Your task to perform on an android device: toggle improve location accuracy Image 0: 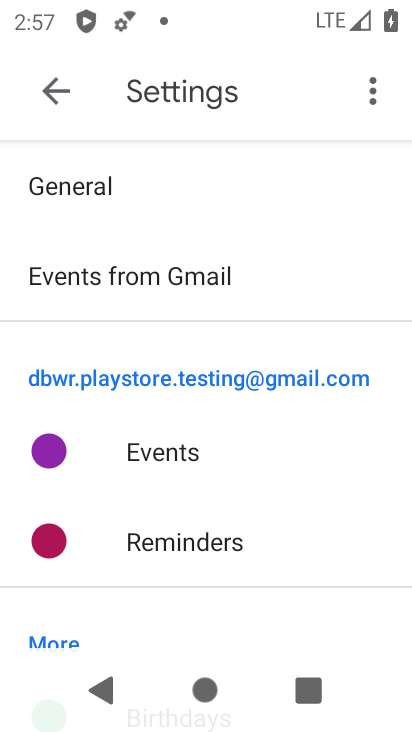
Step 0: press back button
Your task to perform on an android device: toggle improve location accuracy Image 1: 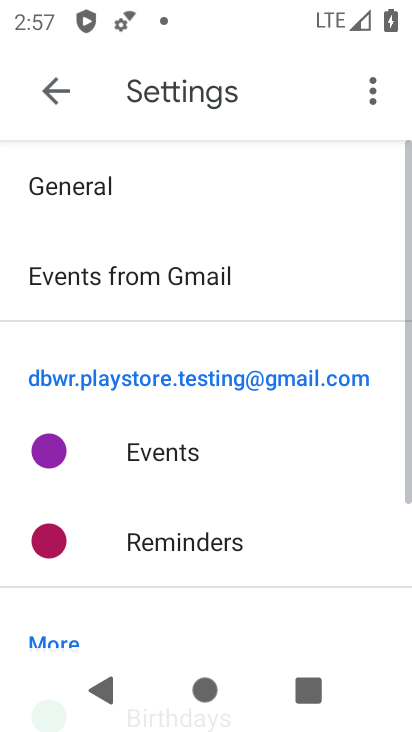
Step 1: press back button
Your task to perform on an android device: toggle improve location accuracy Image 2: 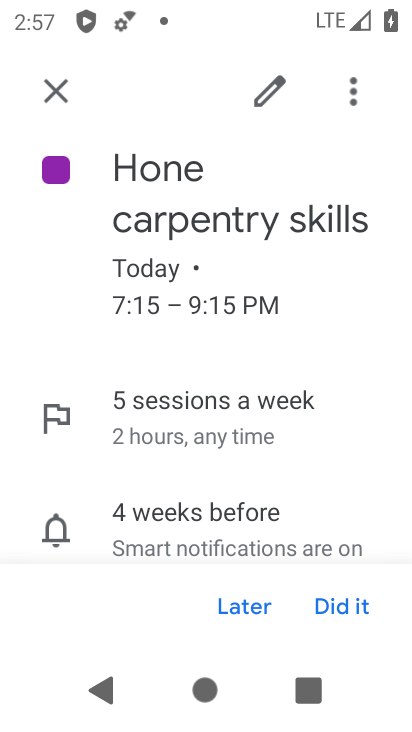
Step 2: press back button
Your task to perform on an android device: toggle improve location accuracy Image 3: 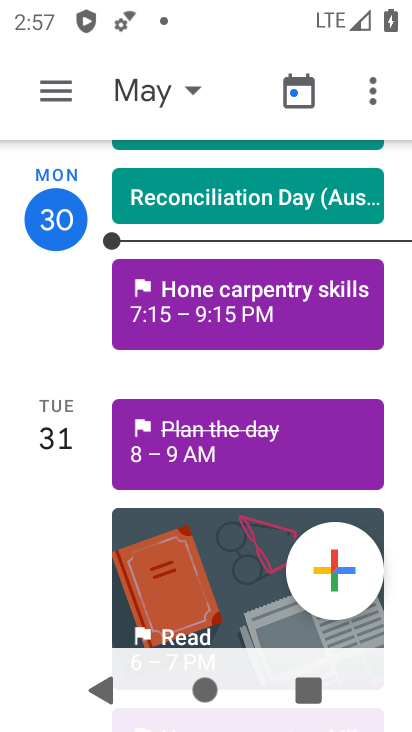
Step 3: press back button
Your task to perform on an android device: toggle improve location accuracy Image 4: 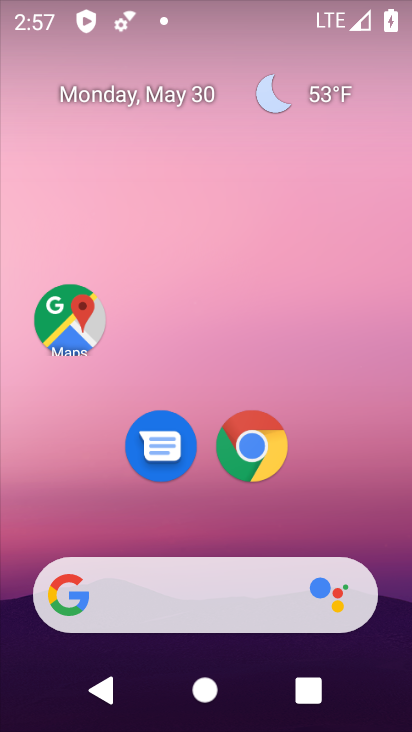
Step 4: drag from (327, 512) to (196, 0)
Your task to perform on an android device: toggle improve location accuracy Image 5: 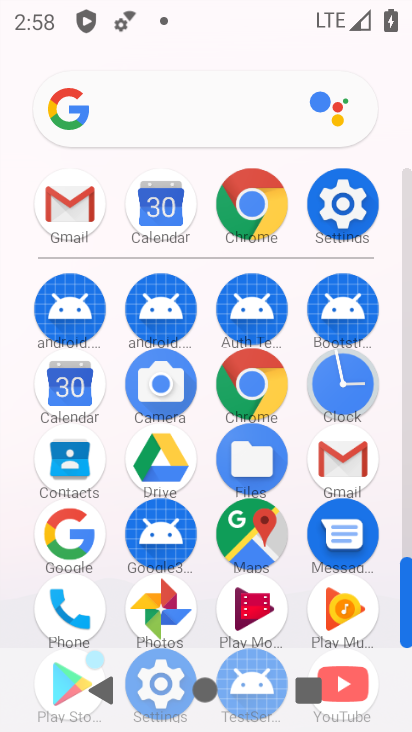
Step 5: click (344, 204)
Your task to perform on an android device: toggle improve location accuracy Image 6: 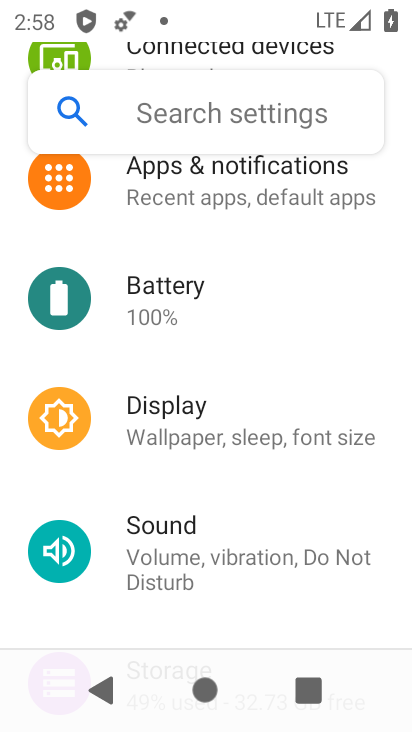
Step 6: drag from (233, 368) to (271, 240)
Your task to perform on an android device: toggle improve location accuracy Image 7: 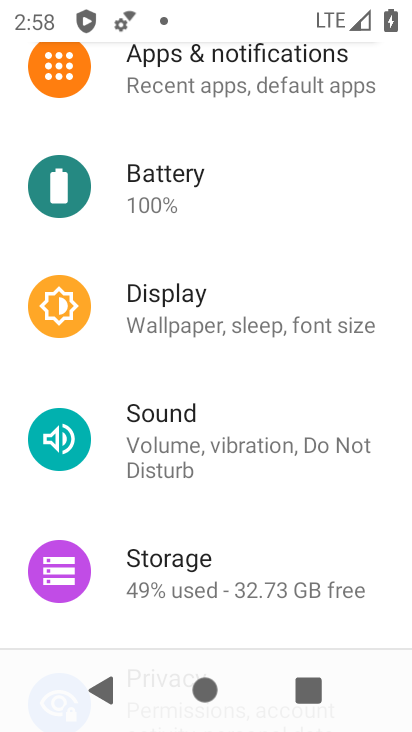
Step 7: drag from (237, 393) to (279, 279)
Your task to perform on an android device: toggle improve location accuracy Image 8: 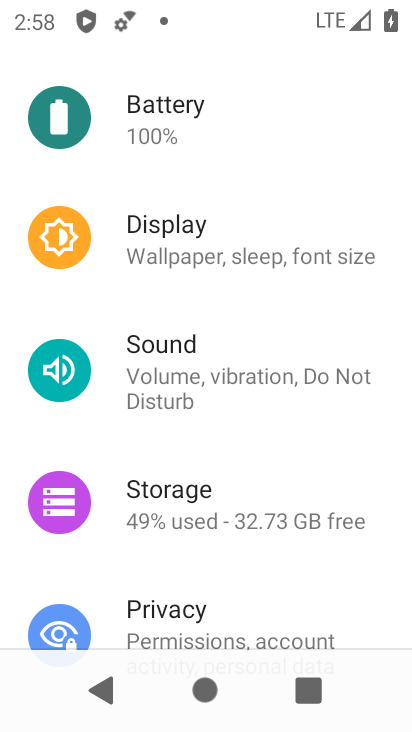
Step 8: drag from (208, 444) to (274, 298)
Your task to perform on an android device: toggle improve location accuracy Image 9: 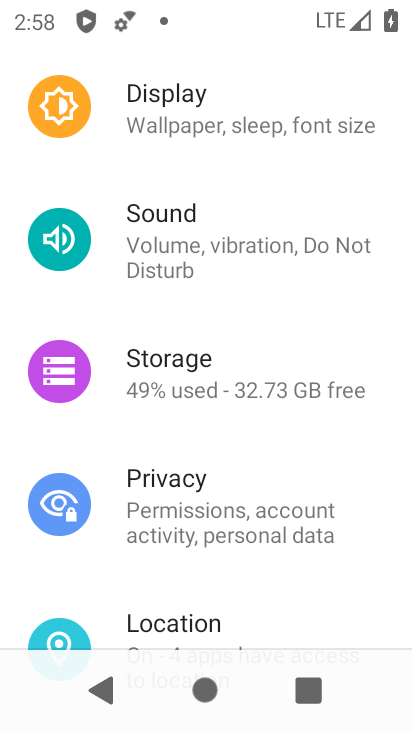
Step 9: drag from (244, 458) to (292, 303)
Your task to perform on an android device: toggle improve location accuracy Image 10: 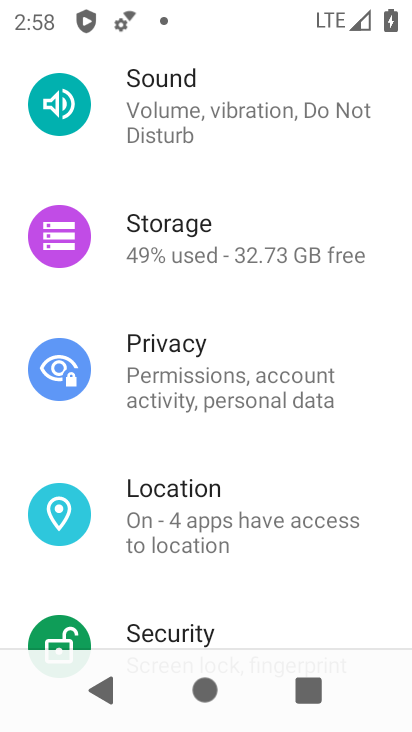
Step 10: drag from (257, 476) to (278, 328)
Your task to perform on an android device: toggle improve location accuracy Image 11: 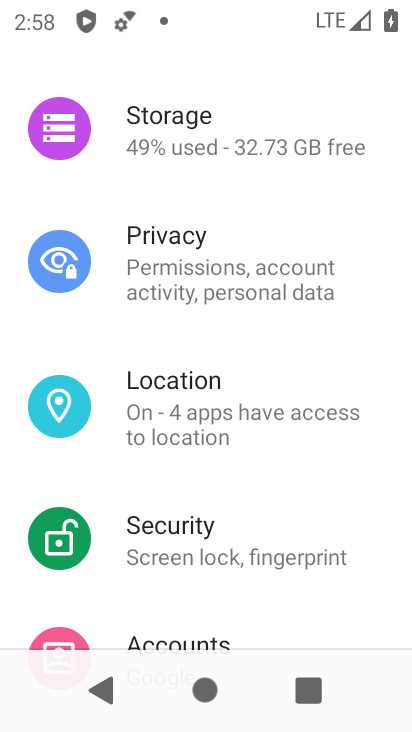
Step 11: drag from (244, 494) to (280, 342)
Your task to perform on an android device: toggle improve location accuracy Image 12: 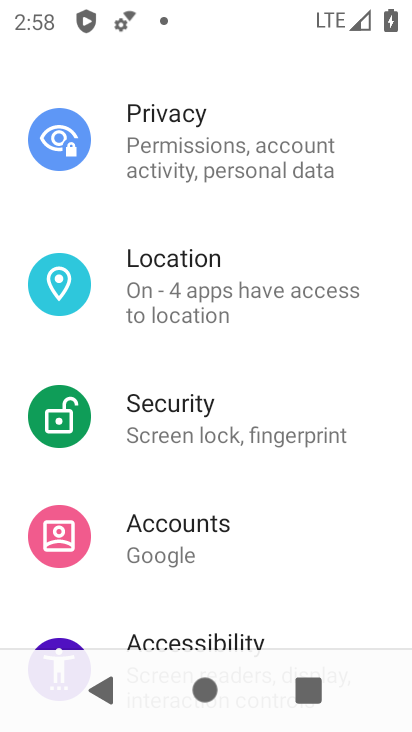
Step 12: drag from (237, 503) to (293, 364)
Your task to perform on an android device: toggle improve location accuracy Image 13: 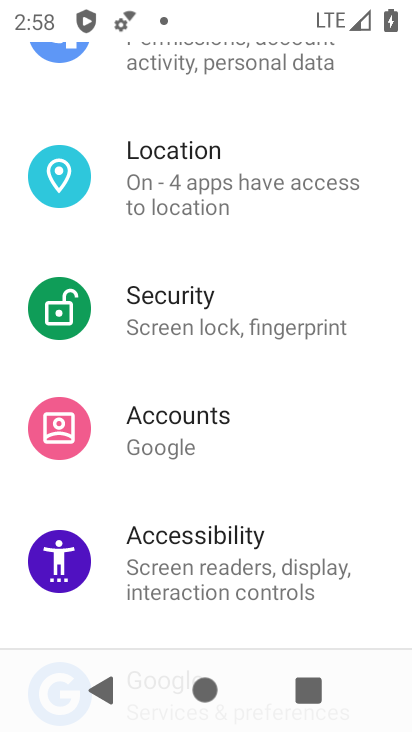
Step 13: drag from (280, 470) to (297, 387)
Your task to perform on an android device: toggle improve location accuracy Image 14: 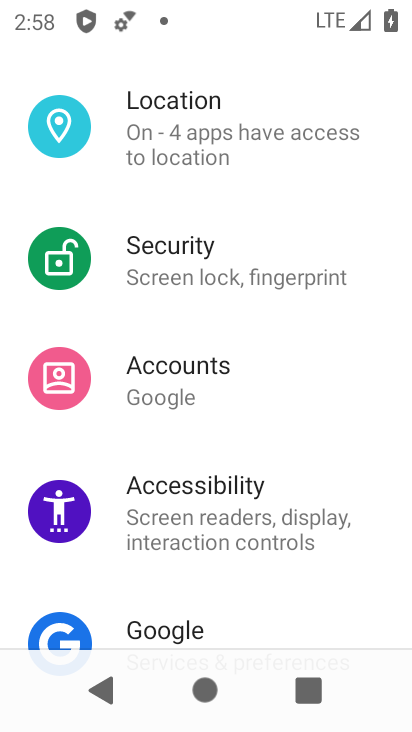
Step 14: drag from (264, 571) to (333, 408)
Your task to perform on an android device: toggle improve location accuracy Image 15: 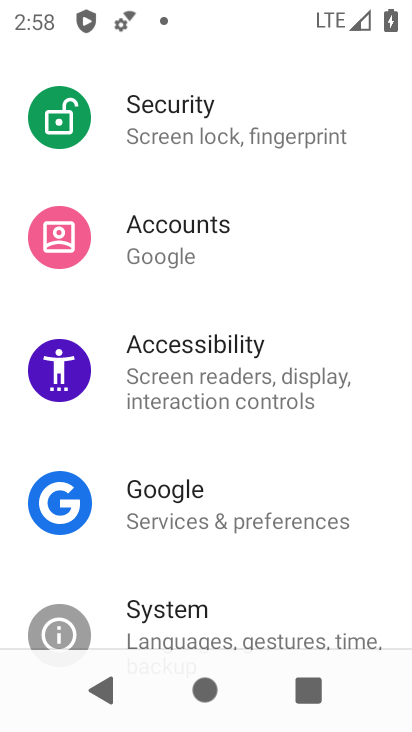
Step 15: drag from (288, 481) to (342, 350)
Your task to perform on an android device: toggle improve location accuracy Image 16: 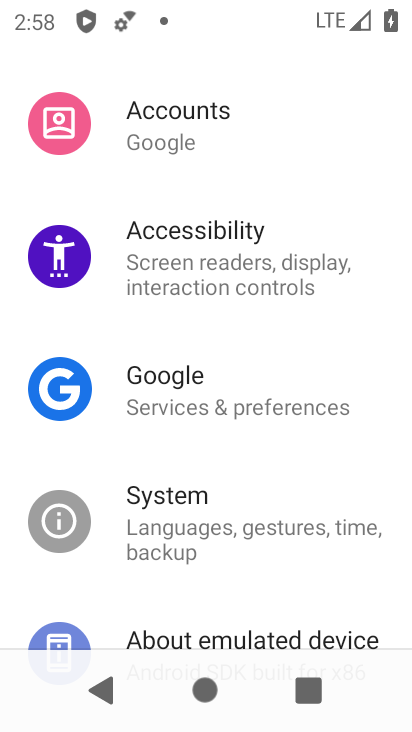
Step 16: drag from (315, 169) to (315, 388)
Your task to perform on an android device: toggle improve location accuracy Image 17: 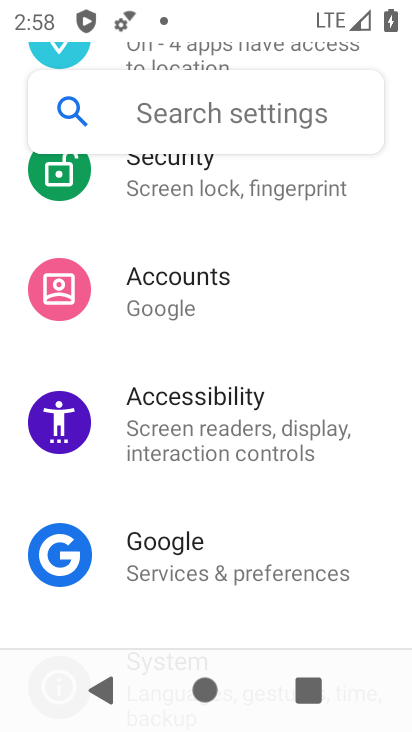
Step 17: drag from (295, 264) to (286, 412)
Your task to perform on an android device: toggle improve location accuracy Image 18: 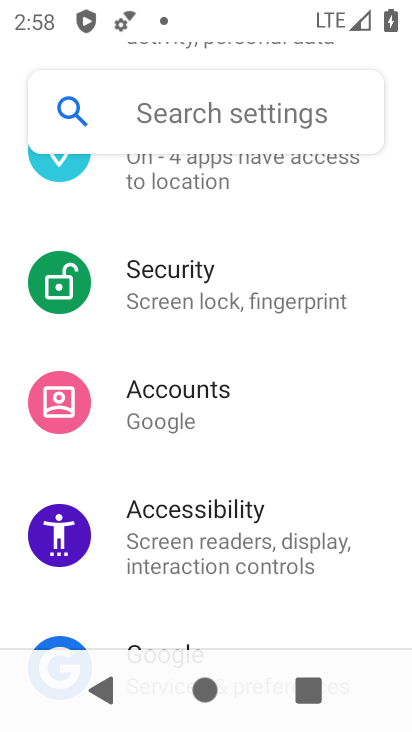
Step 18: drag from (293, 248) to (289, 376)
Your task to perform on an android device: toggle improve location accuracy Image 19: 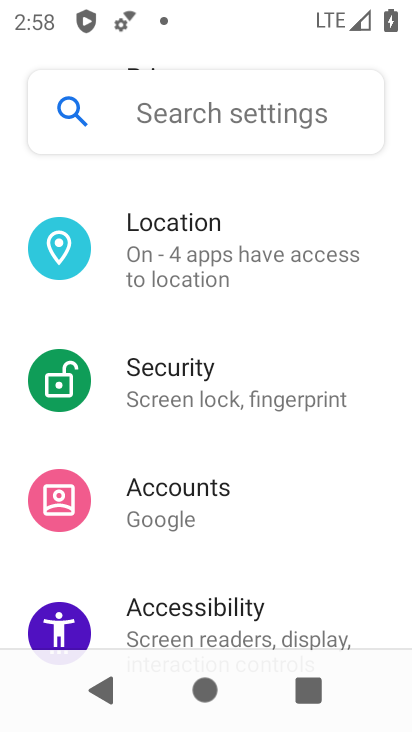
Step 19: click (248, 262)
Your task to perform on an android device: toggle improve location accuracy Image 20: 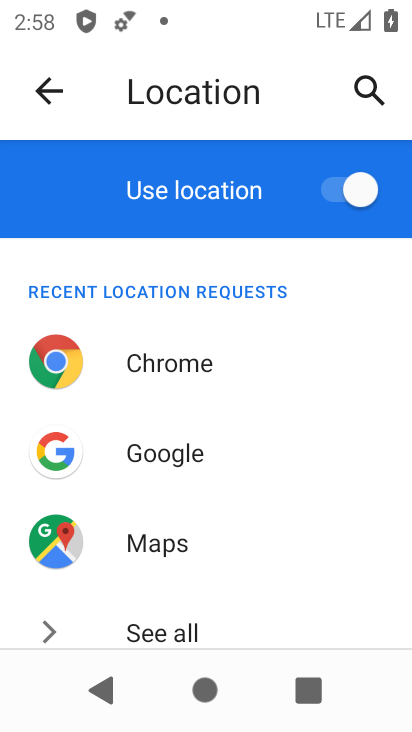
Step 20: drag from (256, 509) to (248, 325)
Your task to perform on an android device: toggle improve location accuracy Image 21: 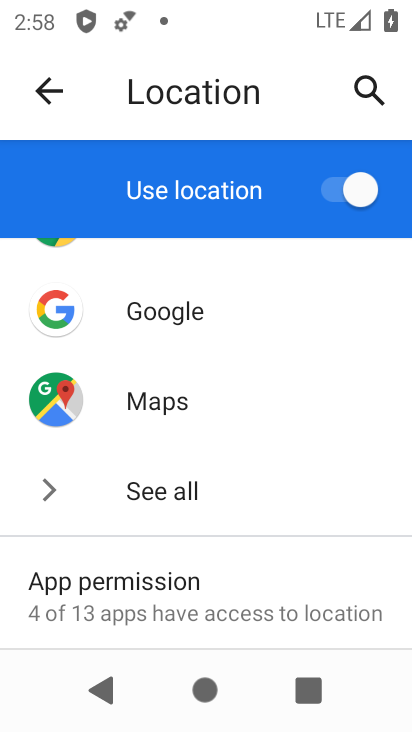
Step 21: drag from (245, 513) to (262, 365)
Your task to perform on an android device: toggle improve location accuracy Image 22: 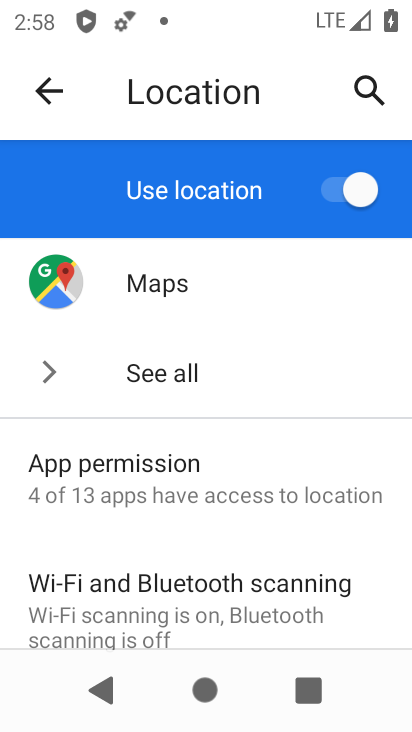
Step 22: drag from (219, 526) to (301, 320)
Your task to perform on an android device: toggle improve location accuracy Image 23: 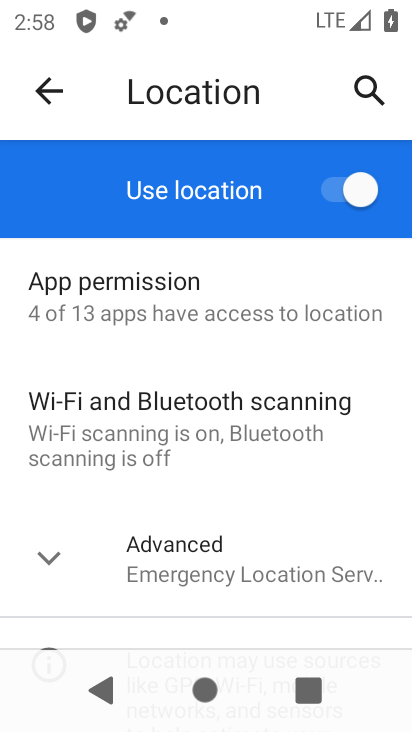
Step 23: click (242, 579)
Your task to perform on an android device: toggle improve location accuracy Image 24: 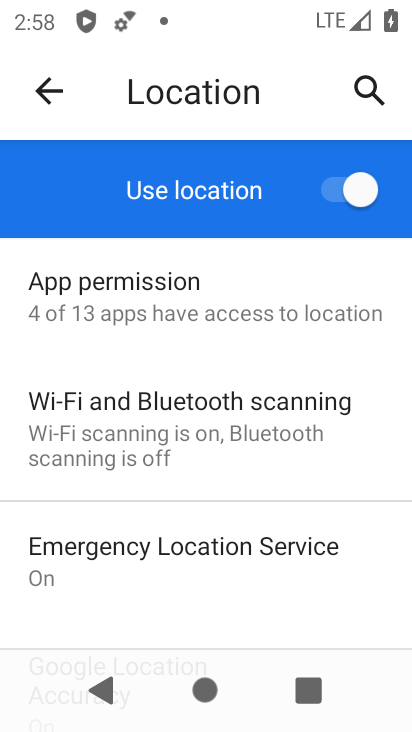
Step 24: drag from (243, 575) to (287, 455)
Your task to perform on an android device: toggle improve location accuracy Image 25: 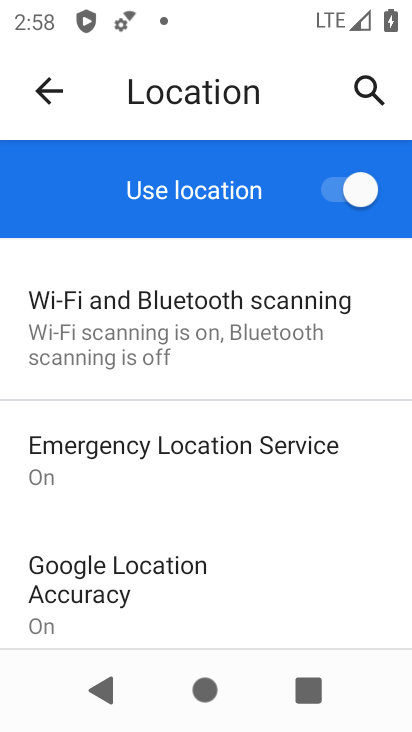
Step 25: drag from (234, 594) to (276, 481)
Your task to perform on an android device: toggle improve location accuracy Image 26: 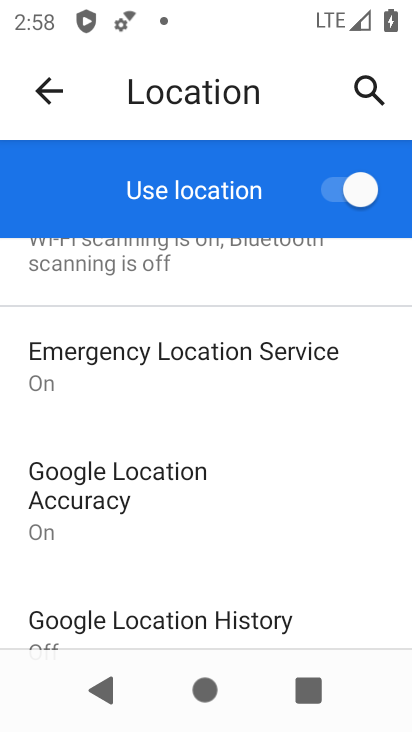
Step 26: click (211, 501)
Your task to perform on an android device: toggle improve location accuracy Image 27: 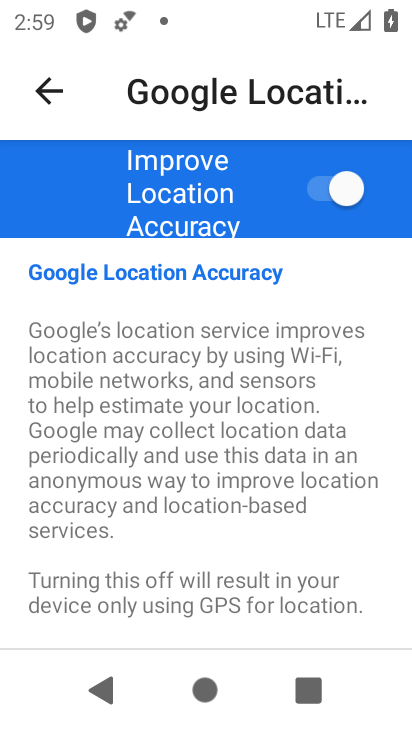
Step 27: click (333, 188)
Your task to perform on an android device: toggle improve location accuracy Image 28: 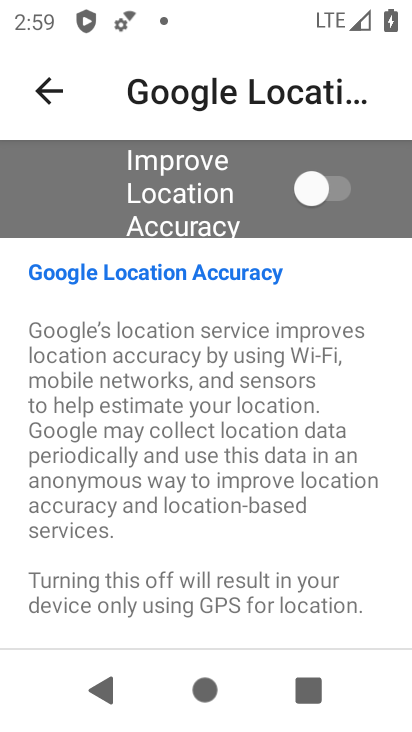
Step 28: task complete